Your task to perform on an android device: Go to CNN.com Image 0: 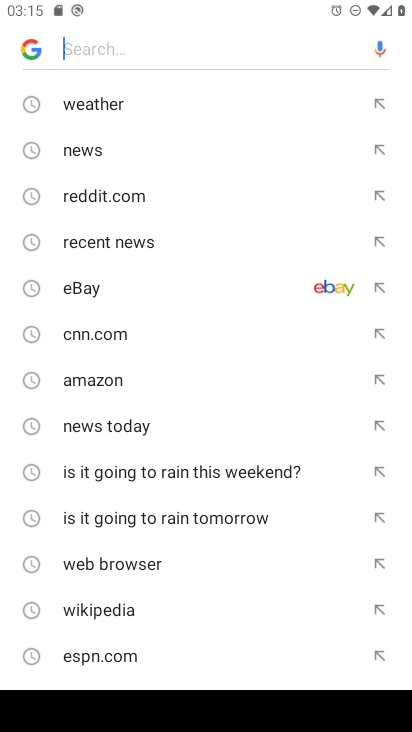
Step 0: click (126, 337)
Your task to perform on an android device: Go to CNN.com Image 1: 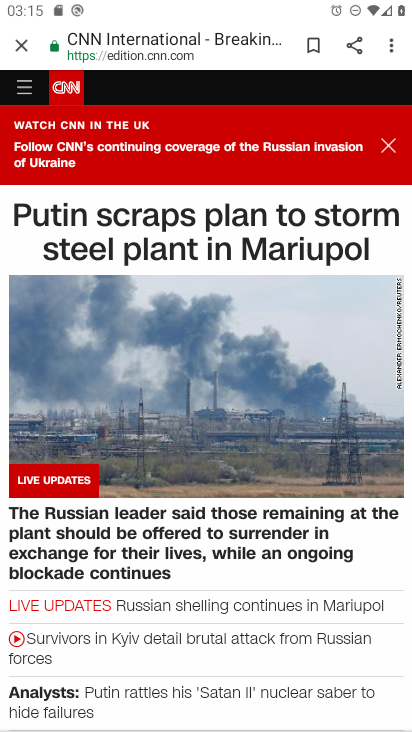
Step 1: task complete